Your task to perform on an android device: find snoozed emails in the gmail app Image 0: 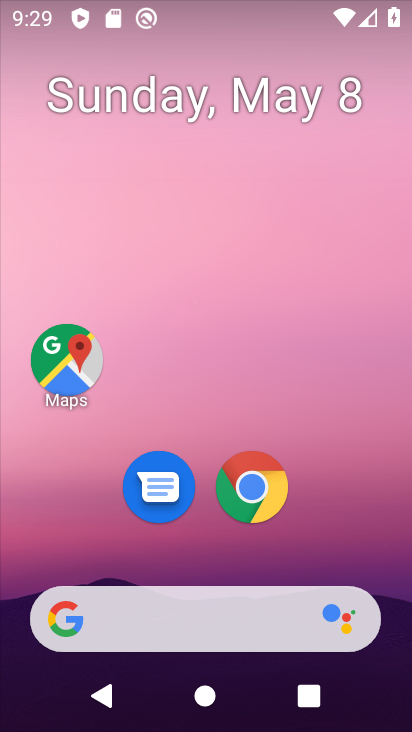
Step 0: drag from (173, 568) to (259, 147)
Your task to perform on an android device: find snoozed emails in the gmail app Image 1: 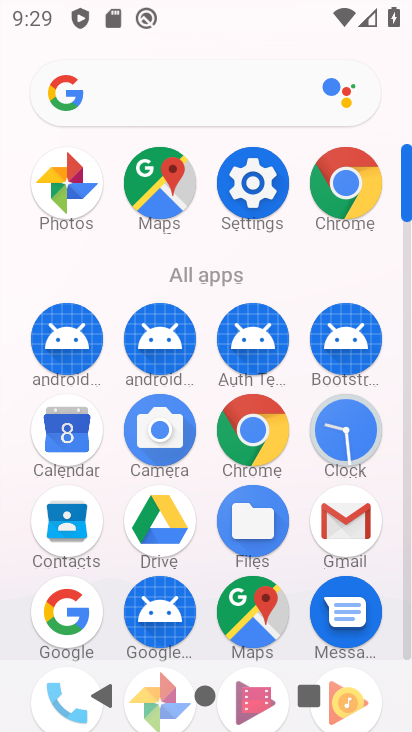
Step 1: click (336, 536)
Your task to perform on an android device: find snoozed emails in the gmail app Image 2: 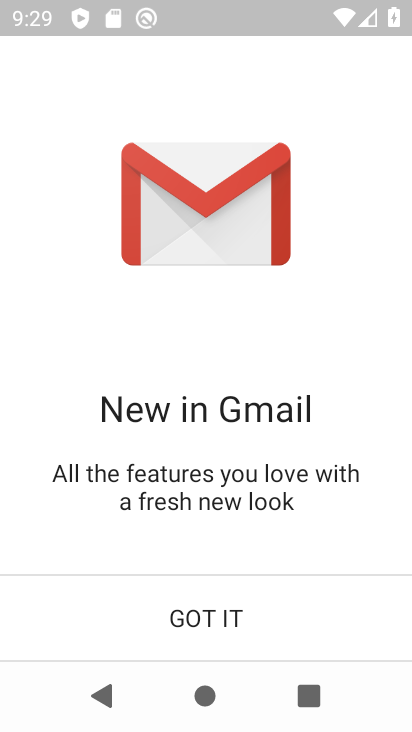
Step 2: click (284, 618)
Your task to perform on an android device: find snoozed emails in the gmail app Image 3: 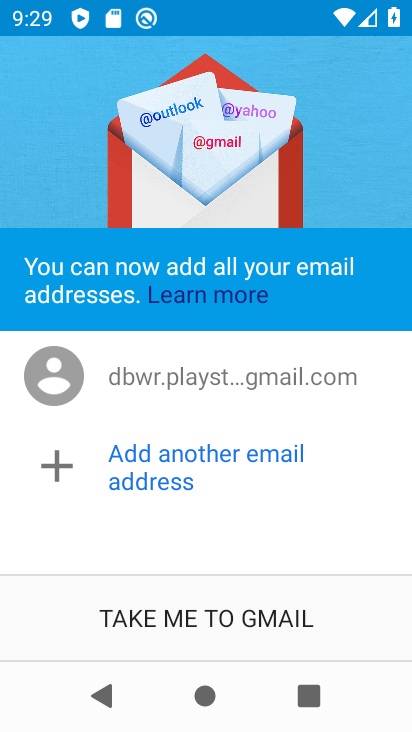
Step 3: click (284, 618)
Your task to perform on an android device: find snoozed emails in the gmail app Image 4: 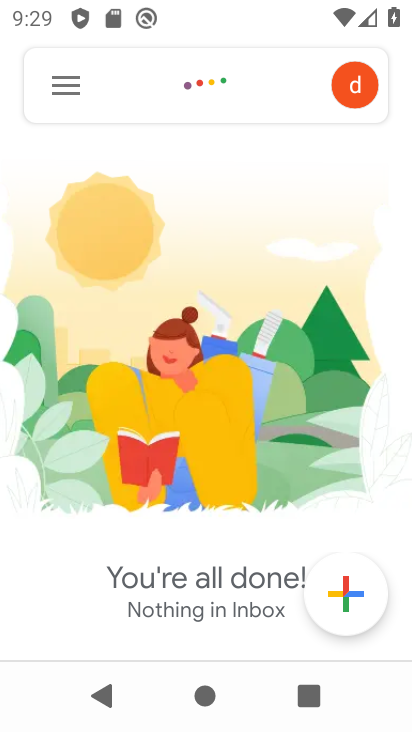
Step 4: click (68, 96)
Your task to perform on an android device: find snoozed emails in the gmail app Image 5: 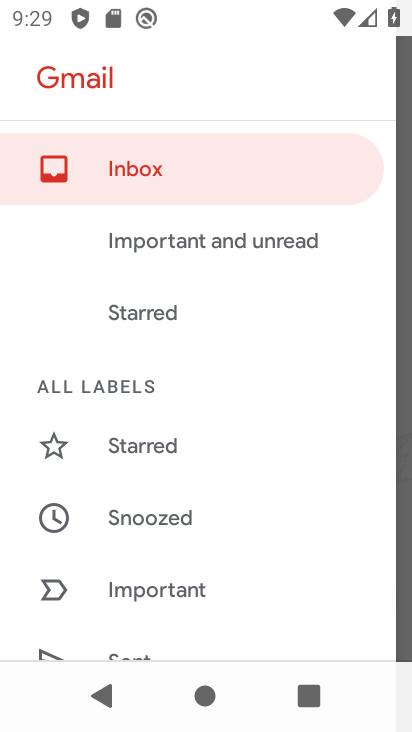
Step 5: click (213, 528)
Your task to perform on an android device: find snoozed emails in the gmail app Image 6: 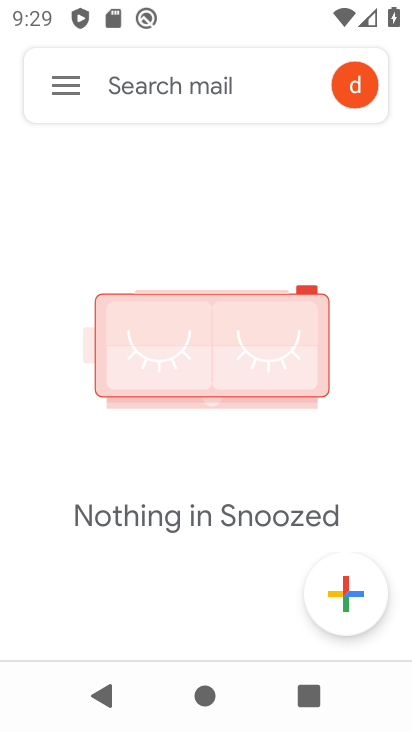
Step 6: task complete